Your task to perform on an android device: turn on wifi Image 0: 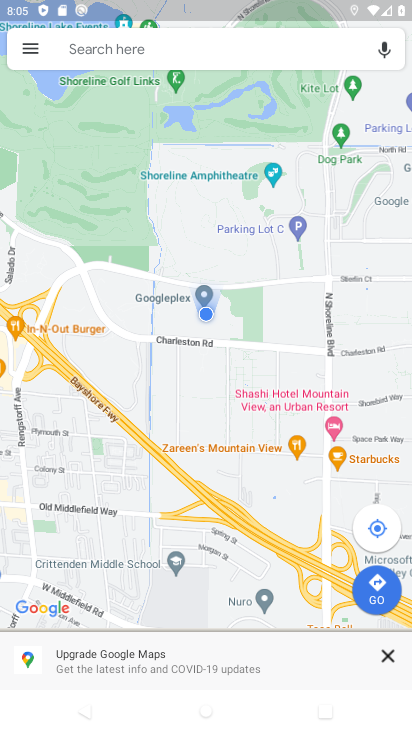
Step 0: press home button
Your task to perform on an android device: turn on wifi Image 1: 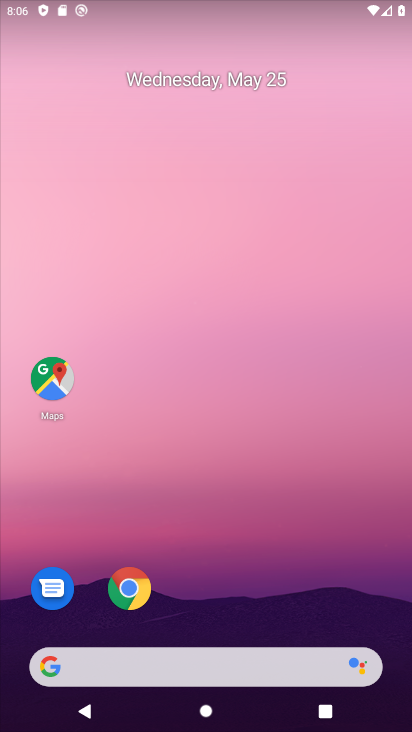
Step 1: task complete